Your task to perform on an android device: What is the capital of the United Kingdom? Image 0: 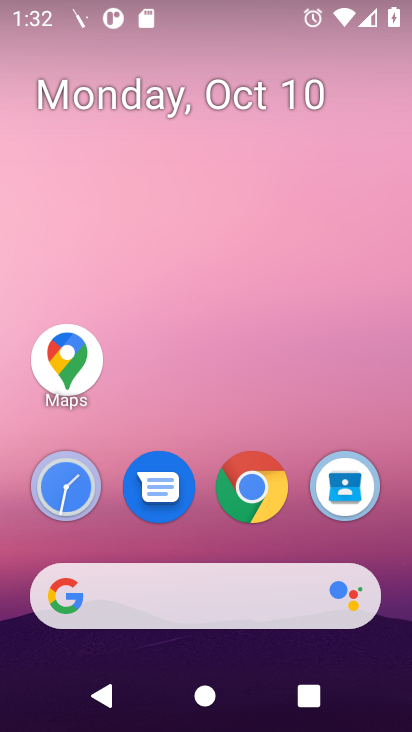
Step 0: click (251, 483)
Your task to perform on an android device: What is the capital of the United Kingdom? Image 1: 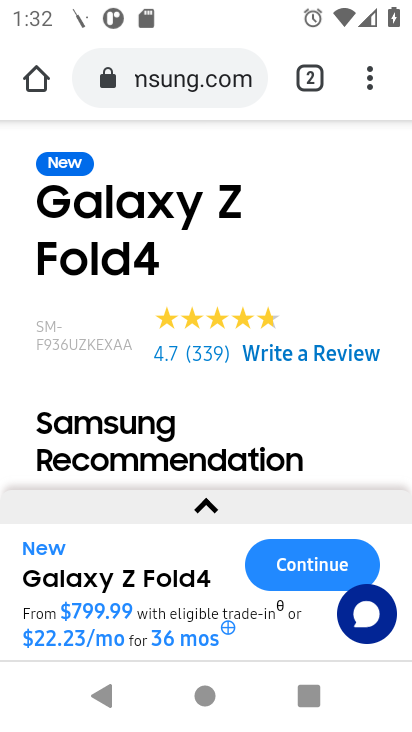
Step 1: press back button
Your task to perform on an android device: What is the capital of the United Kingdom? Image 2: 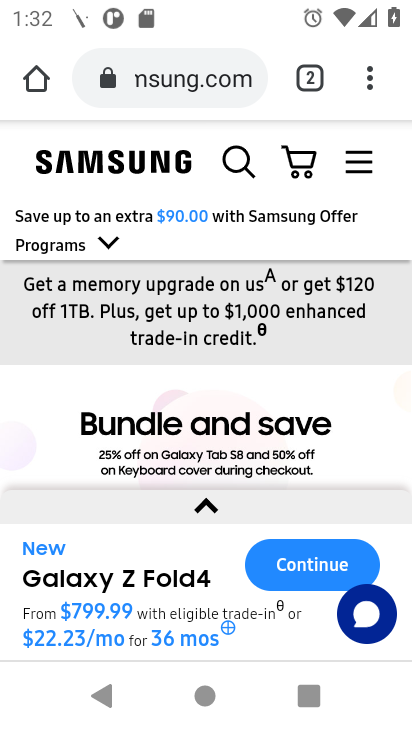
Step 2: click (210, 81)
Your task to perform on an android device: What is the capital of the United Kingdom? Image 3: 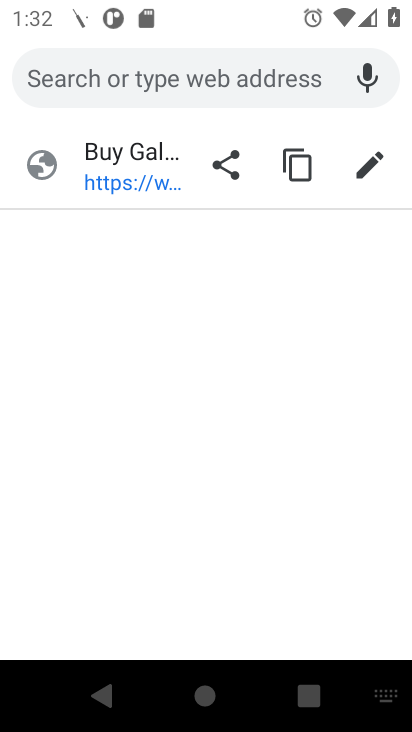
Step 3: type "capital of the United Kingdom"
Your task to perform on an android device: What is the capital of the United Kingdom? Image 4: 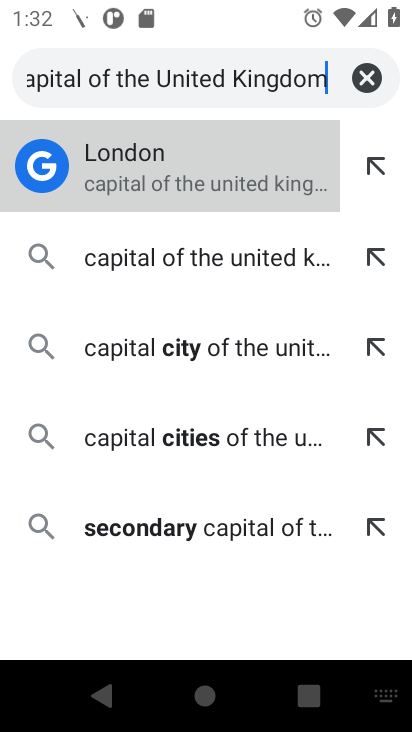
Step 4: type ""
Your task to perform on an android device: What is the capital of the United Kingdom? Image 5: 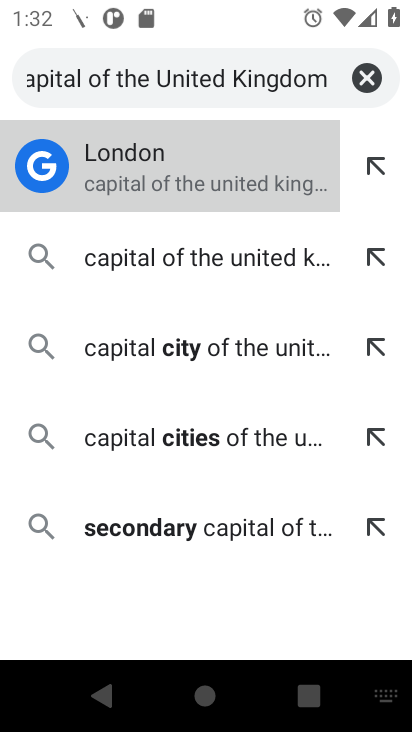
Step 5: press enter
Your task to perform on an android device: What is the capital of the United Kingdom? Image 6: 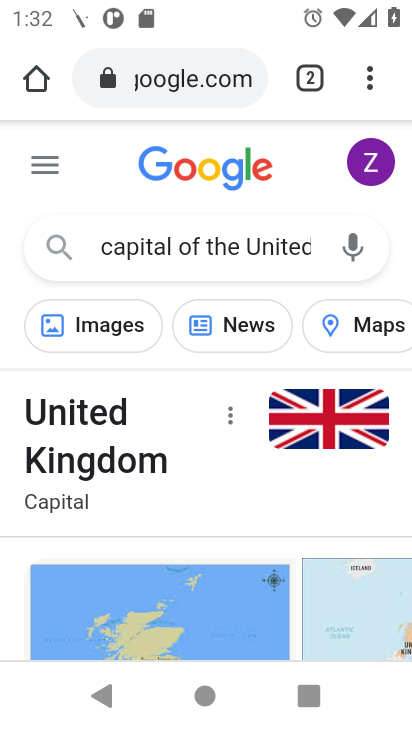
Step 6: task complete